Your task to perform on an android device: Go to Amazon Image 0: 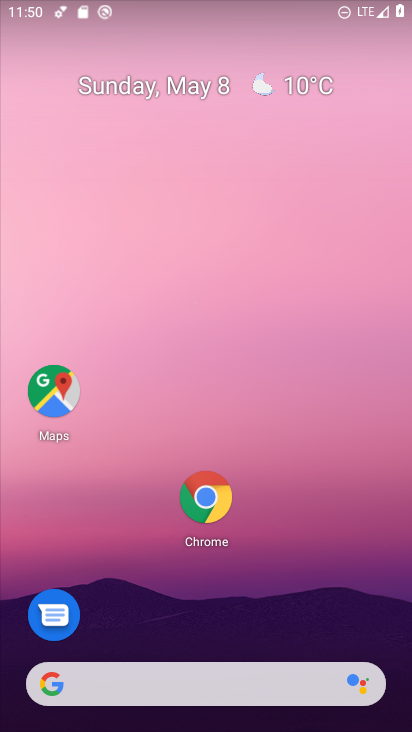
Step 0: drag from (282, 560) to (343, 95)
Your task to perform on an android device: Go to Amazon Image 1: 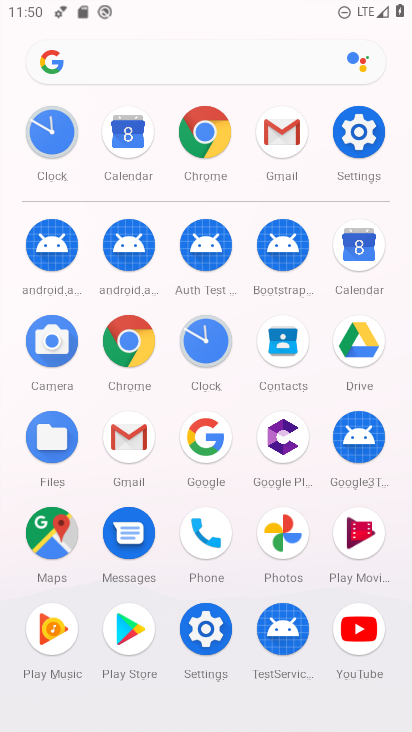
Step 1: click (203, 129)
Your task to perform on an android device: Go to Amazon Image 2: 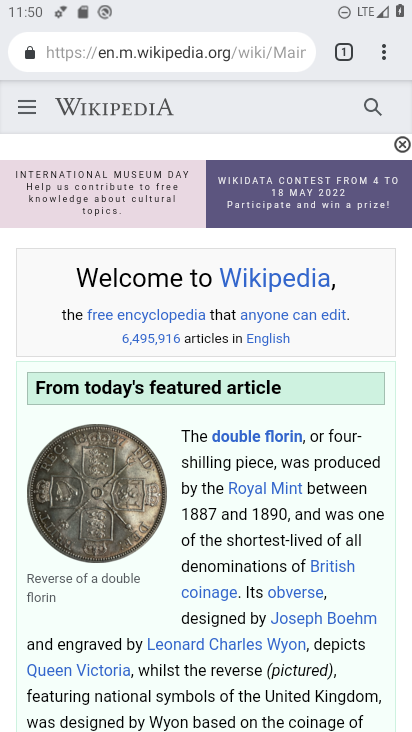
Step 2: click (247, 49)
Your task to perform on an android device: Go to Amazon Image 3: 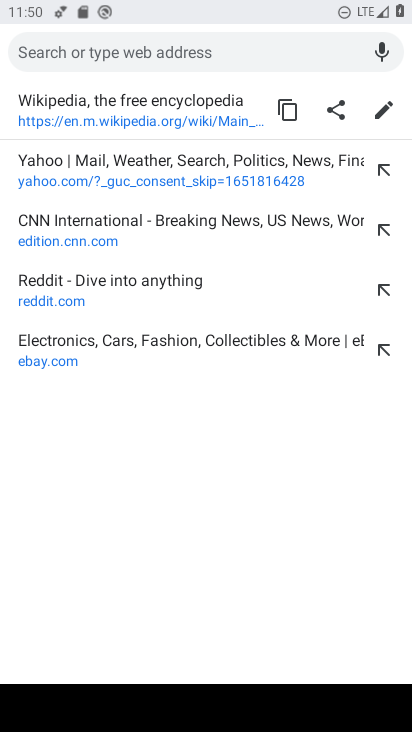
Step 3: type "amazon"
Your task to perform on an android device: Go to Amazon Image 4: 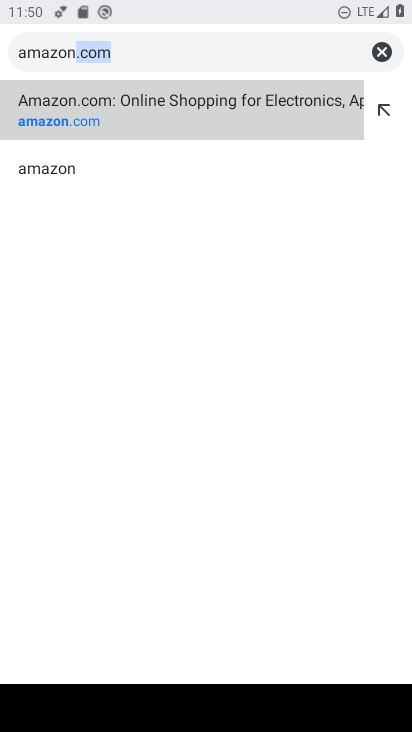
Step 4: click (67, 96)
Your task to perform on an android device: Go to Amazon Image 5: 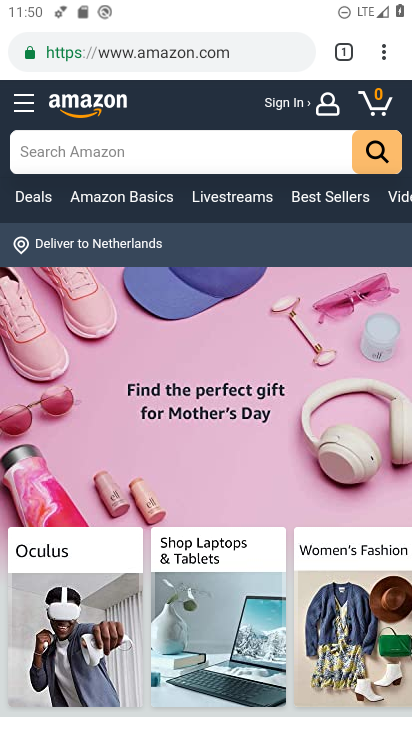
Step 5: task complete